Your task to perform on an android device: turn off smart reply in the gmail app Image 0: 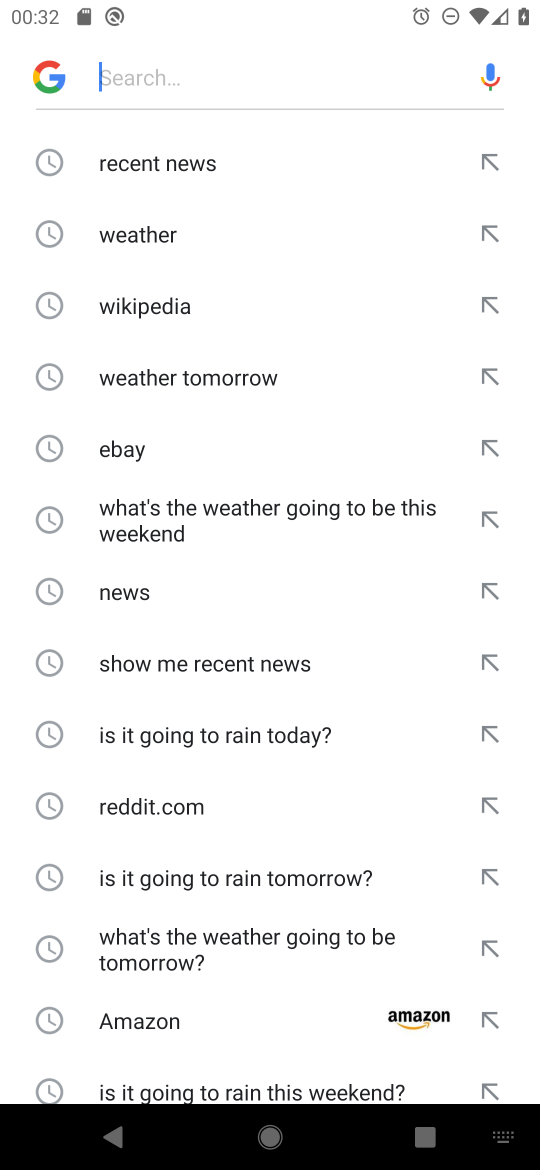
Step 0: press home button
Your task to perform on an android device: turn off smart reply in the gmail app Image 1: 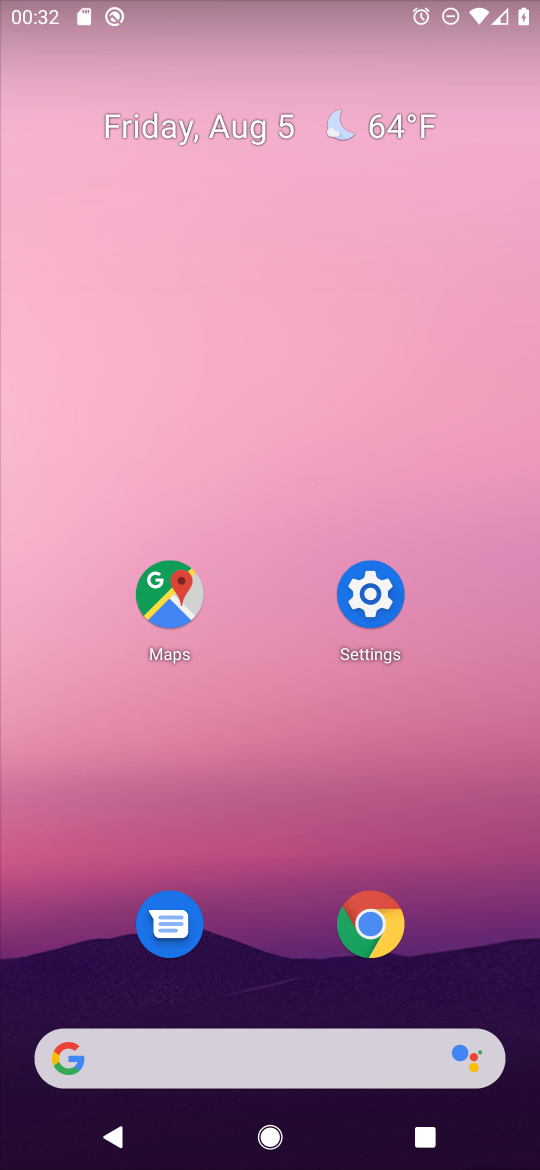
Step 1: drag from (310, 1035) to (369, 312)
Your task to perform on an android device: turn off smart reply in the gmail app Image 2: 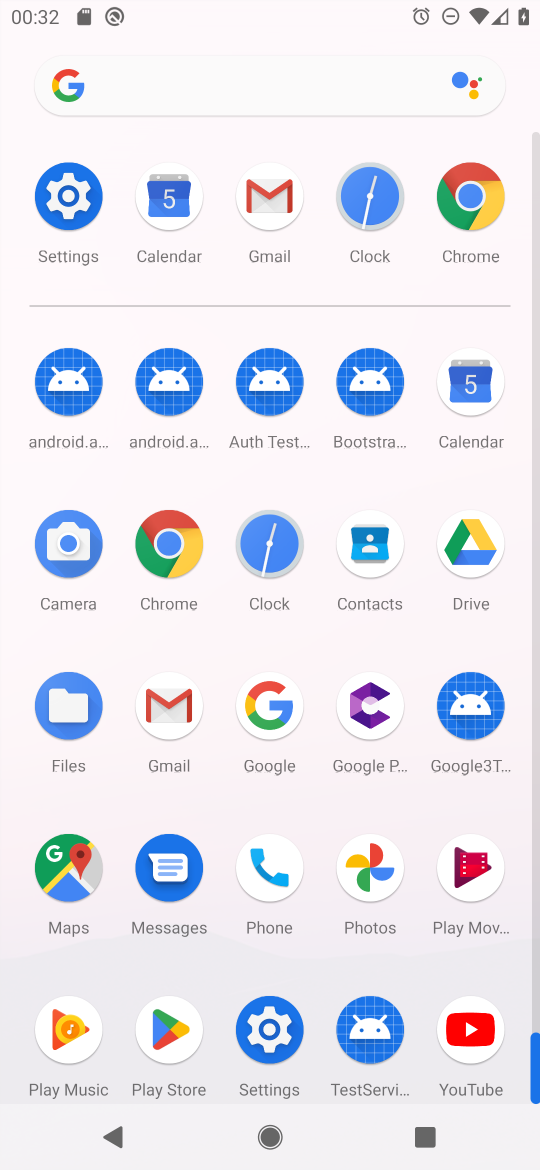
Step 2: click (162, 702)
Your task to perform on an android device: turn off smart reply in the gmail app Image 3: 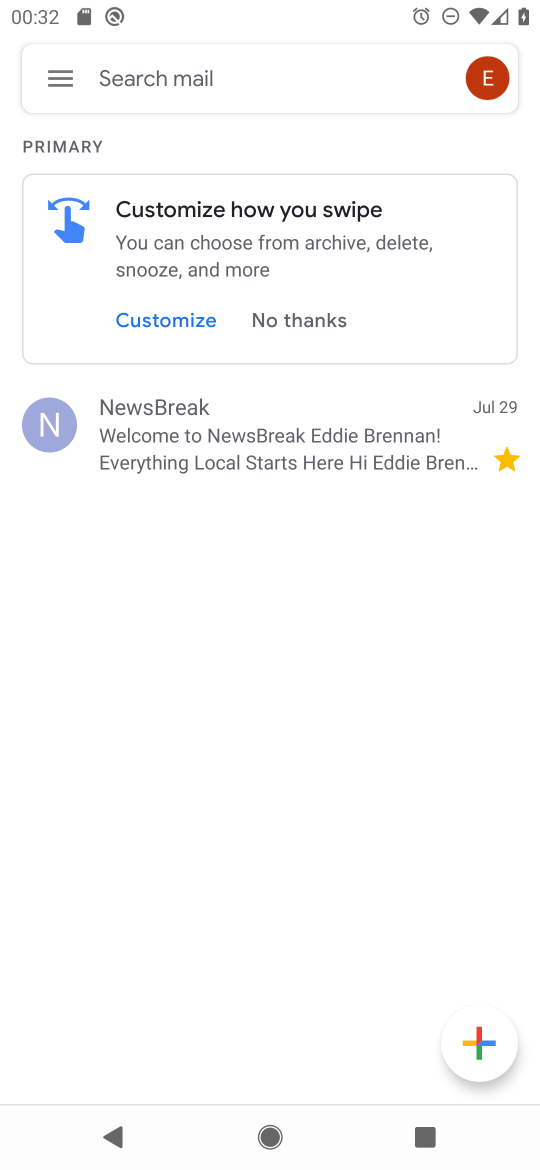
Step 3: click (61, 74)
Your task to perform on an android device: turn off smart reply in the gmail app Image 4: 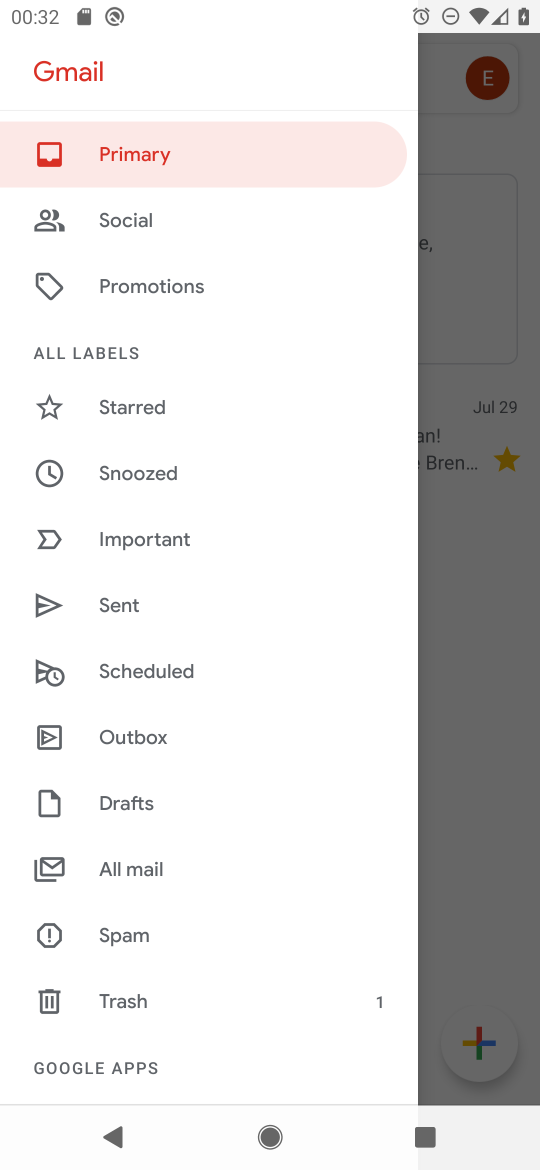
Step 4: drag from (210, 1025) to (317, 419)
Your task to perform on an android device: turn off smart reply in the gmail app Image 5: 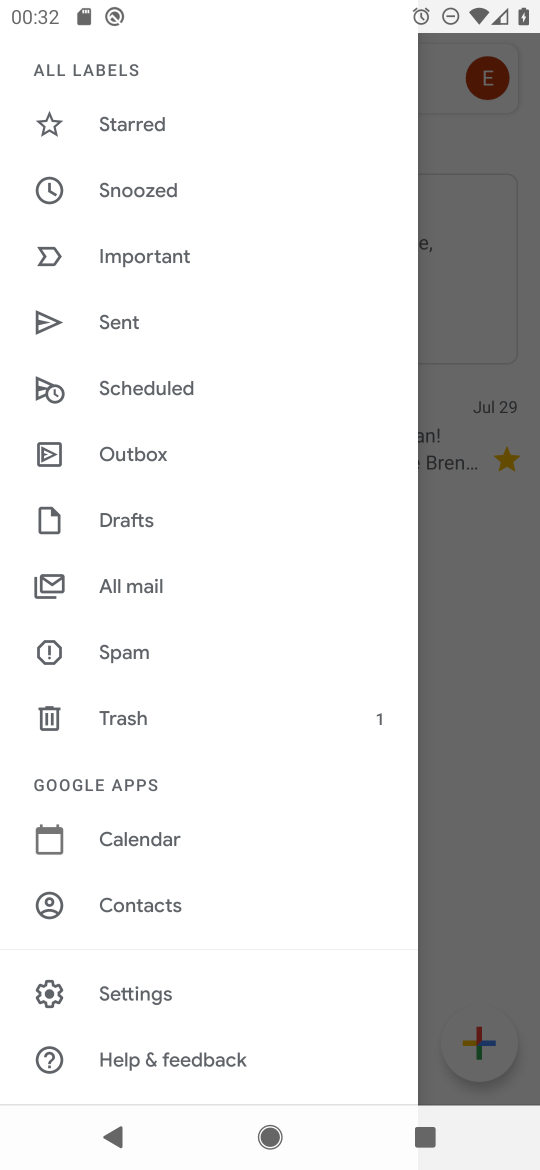
Step 5: click (168, 992)
Your task to perform on an android device: turn off smart reply in the gmail app Image 6: 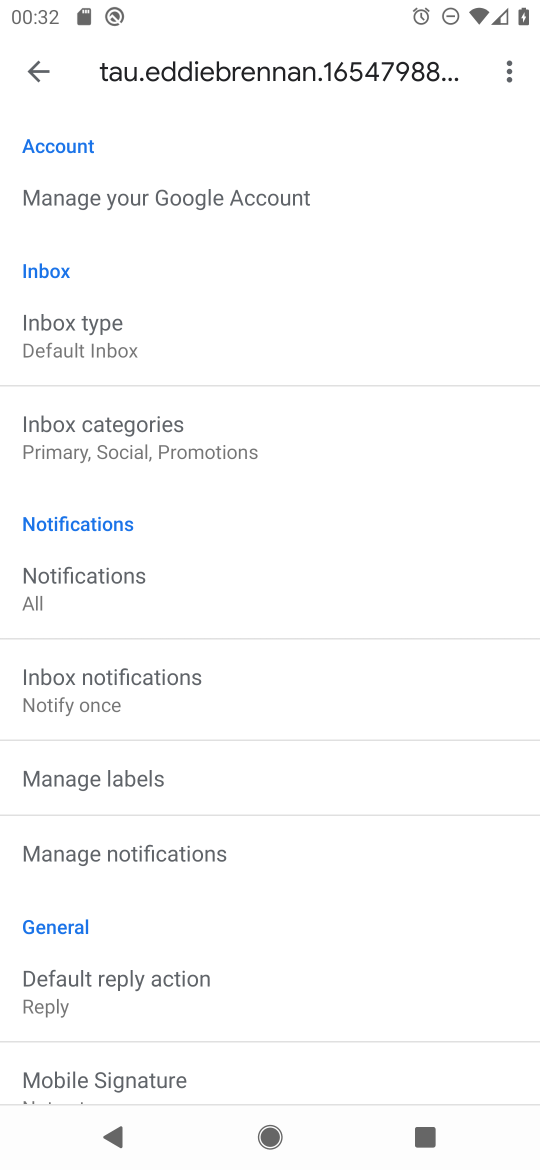
Step 6: task complete